Your task to perform on an android device: Go to Maps Image 0: 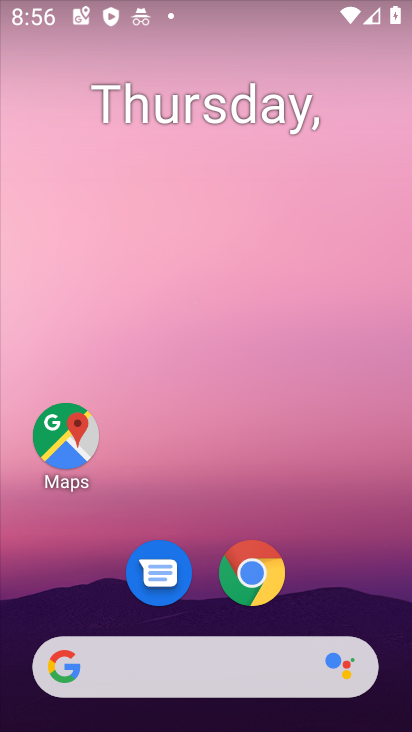
Step 0: drag from (376, 565) to (313, 205)
Your task to perform on an android device: Go to Maps Image 1: 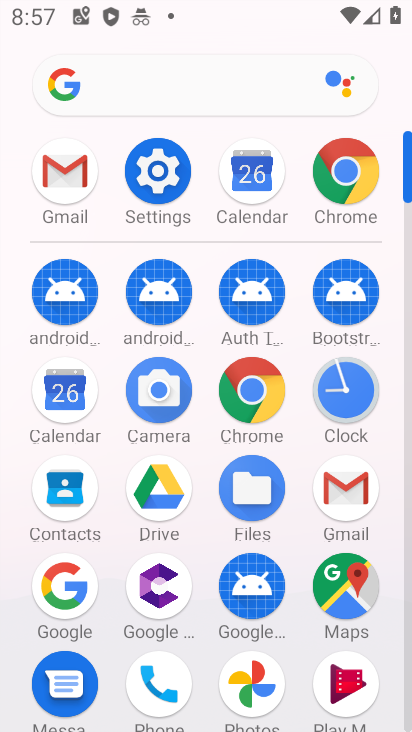
Step 1: click (354, 583)
Your task to perform on an android device: Go to Maps Image 2: 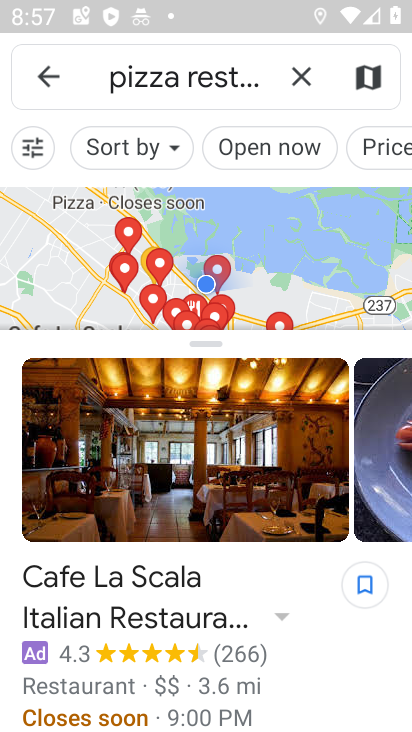
Step 2: task complete